Your task to perform on an android device: snooze an email in the gmail app Image 0: 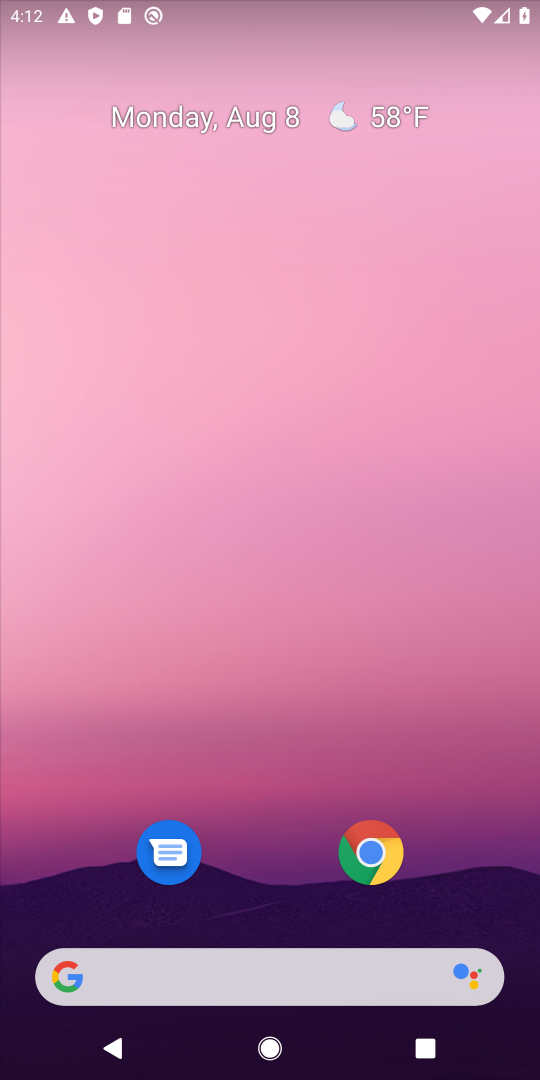
Step 0: drag from (283, 875) to (339, 54)
Your task to perform on an android device: snooze an email in the gmail app Image 1: 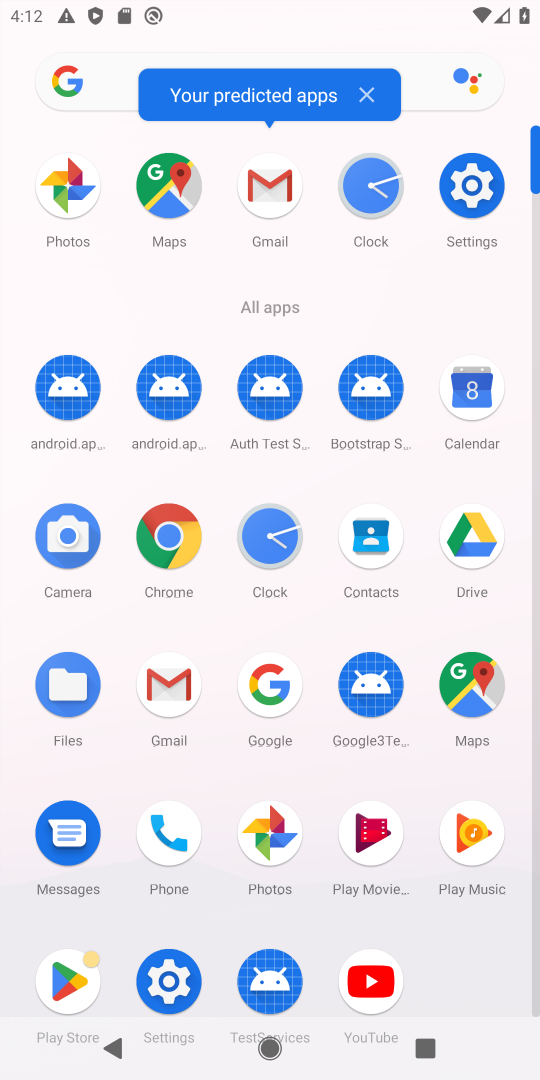
Step 1: click (176, 662)
Your task to perform on an android device: snooze an email in the gmail app Image 2: 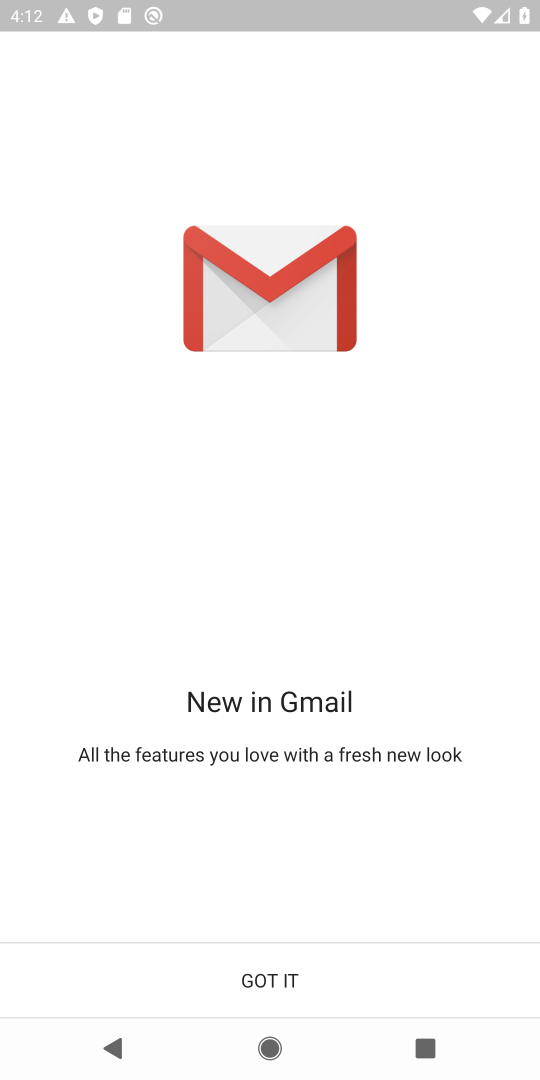
Step 2: click (284, 980)
Your task to perform on an android device: snooze an email in the gmail app Image 3: 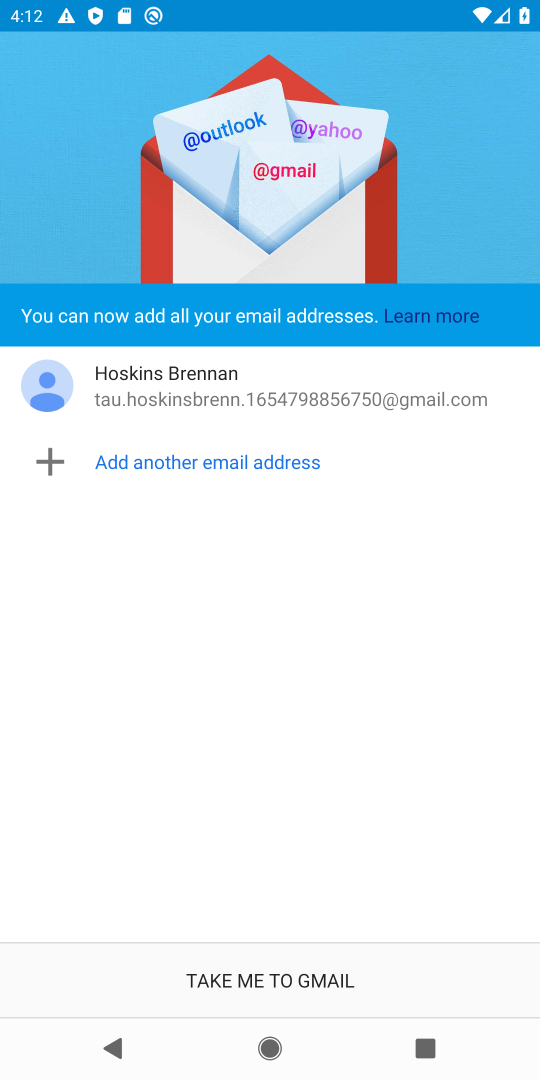
Step 3: click (305, 972)
Your task to perform on an android device: snooze an email in the gmail app Image 4: 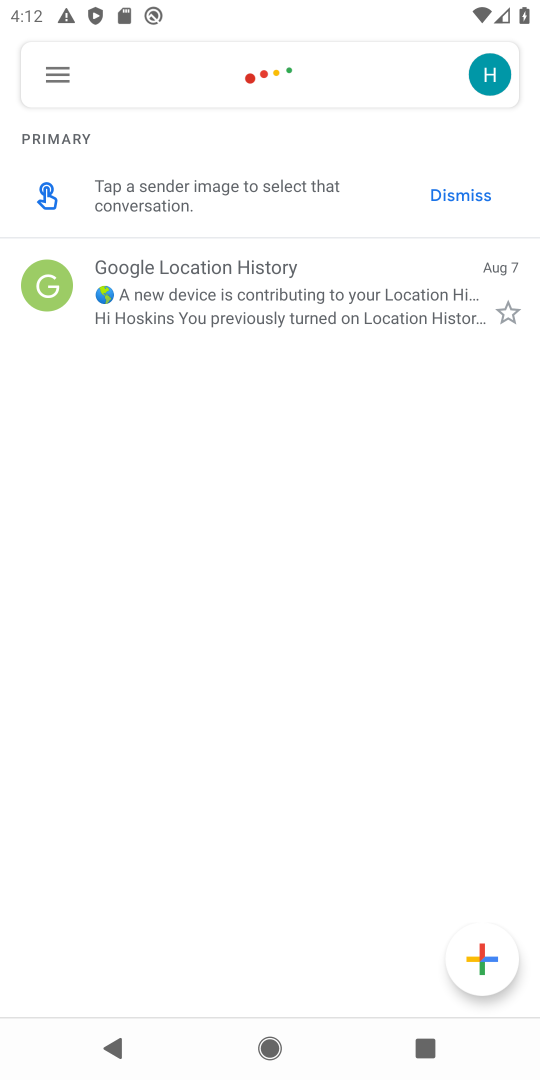
Step 4: click (57, 62)
Your task to perform on an android device: snooze an email in the gmail app Image 5: 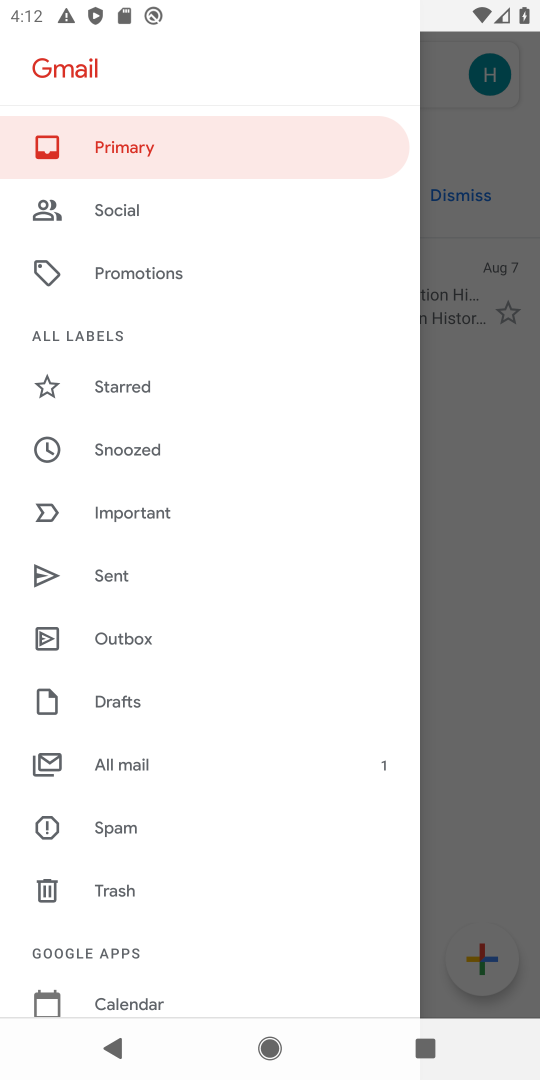
Step 5: click (106, 764)
Your task to perform on an android device: snooze an email in the gmail app Image 6: 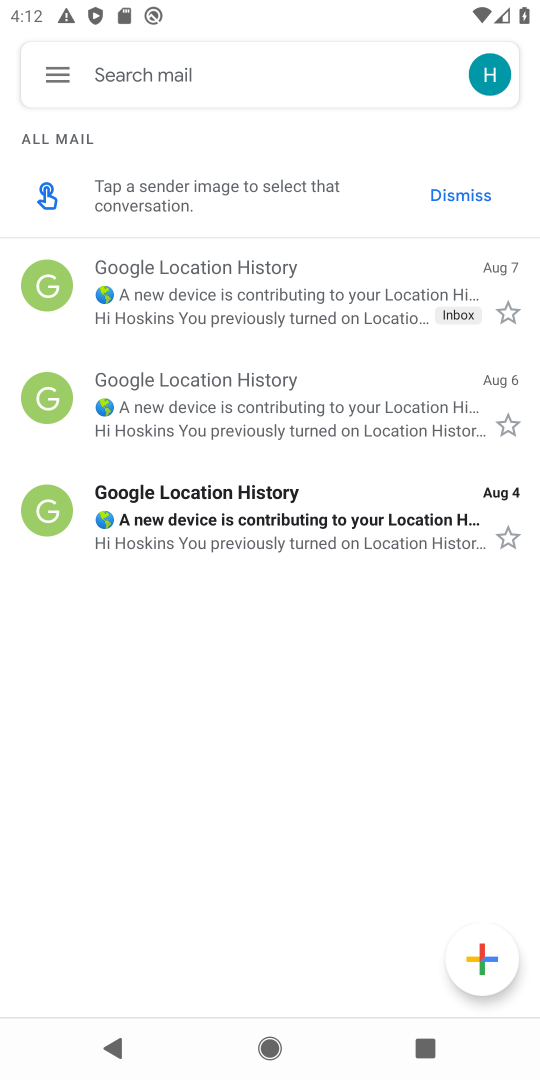
Step 6: click (353, 280)
Your task to perform on an android device: snooze an email in the gmail app Image 7: 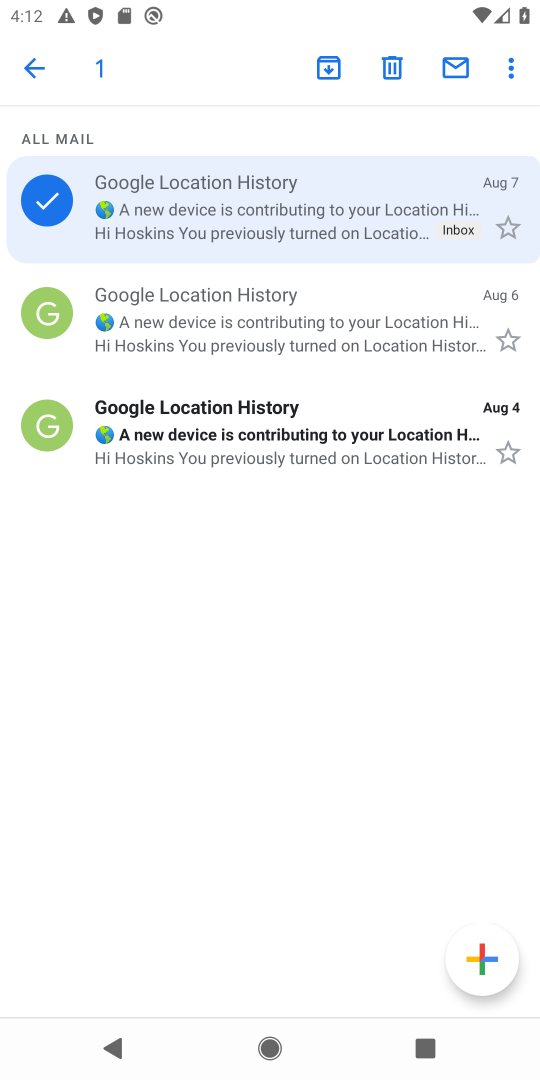
Step 7: click (507, 67)
Your task to perform on an android device: snooze an email in the gmail app Image 8: 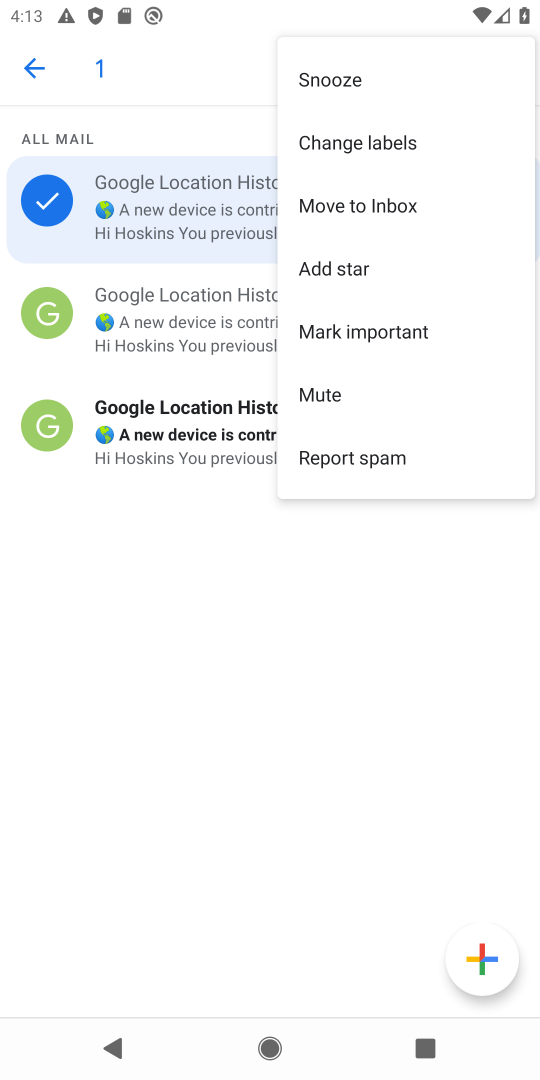
Step 8: click (334, 75)
Your task to perform on an android device: snooze an email in the gmail app Image 9: 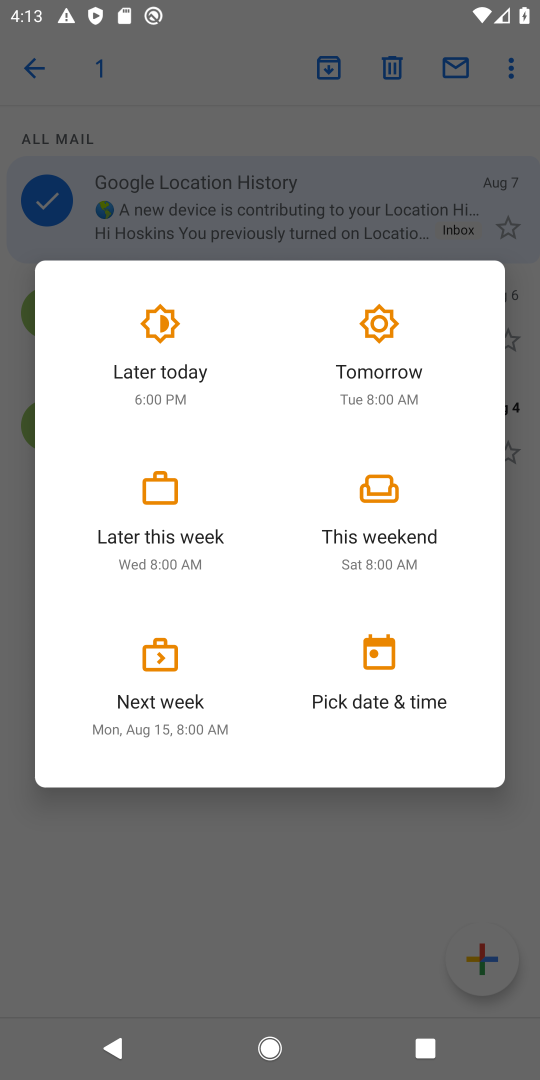
Step 9: click (137, 361)
Your task to perform on an android device: snooze an email in the gmail app Image 10: 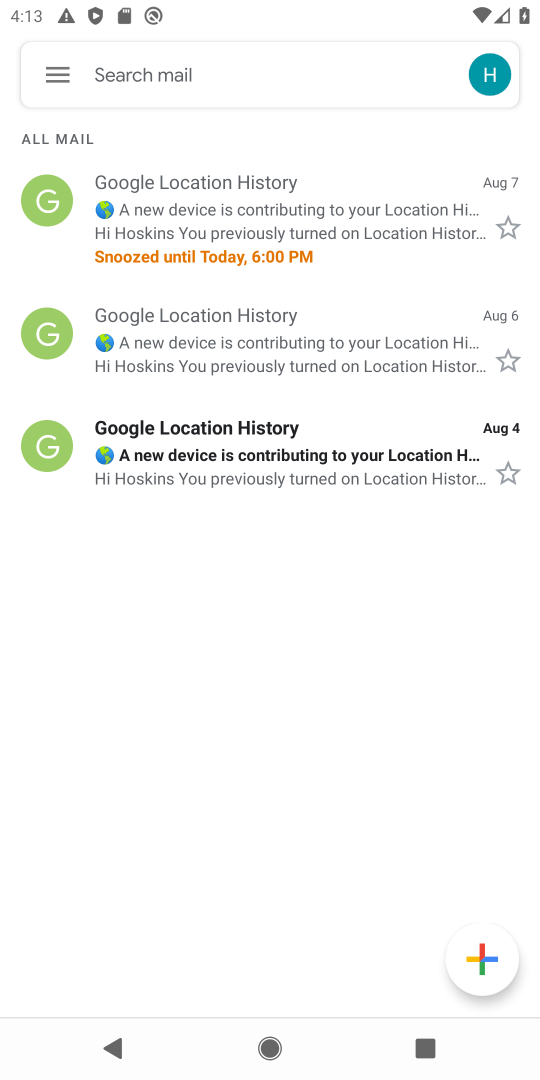
Step 10: task complete